Your task to perform on an android device: Open Youtube and go to "Your channel" Image 0: 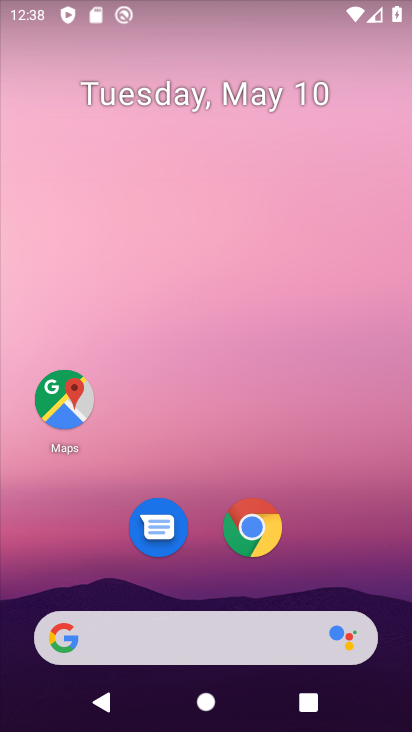
Step 0: drag from (327, 551) to (373, 46)
Your task to perform on an android device: Open Youtube and go to "Your channel" Image 1: 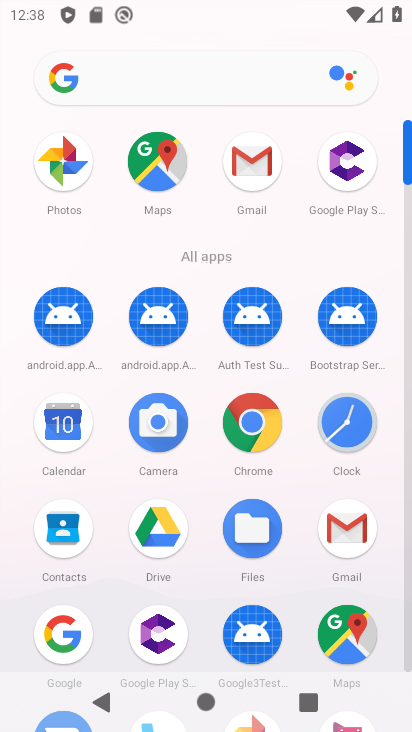
Step 1: drag from (307, 669) to (333, 335)
Your task to perform on an android device: Open Youtube and go to "Your channel" Image 2: 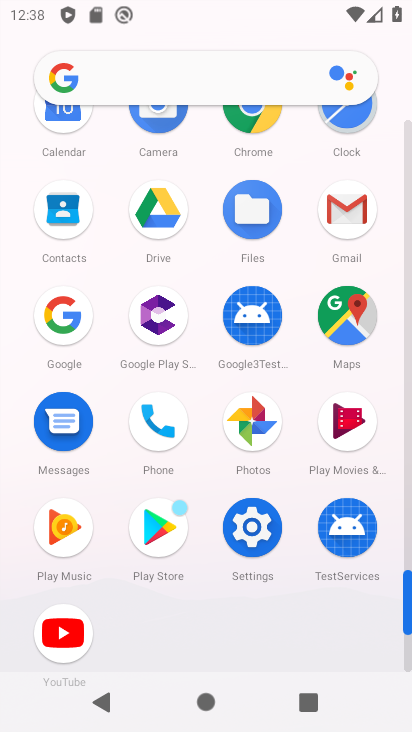
Step 2: click (61, 631)
Your task to perform on an android device: Open Youtube and go to "Your channel" Image 3: 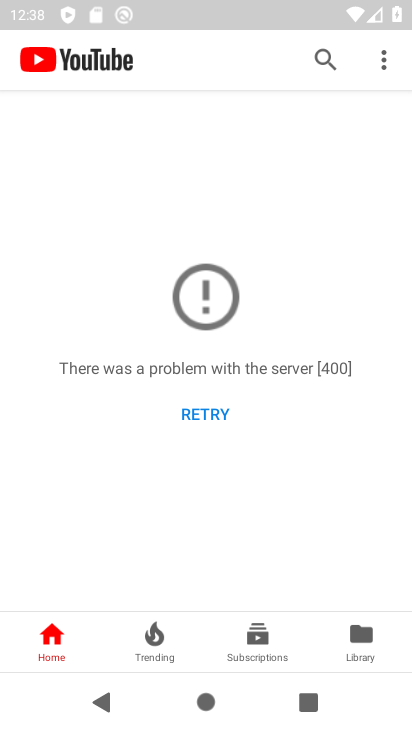
Step 3: click (360, 639)
Your task to perform on an android device: Open Youtube and go to "Your channel" Image 4: 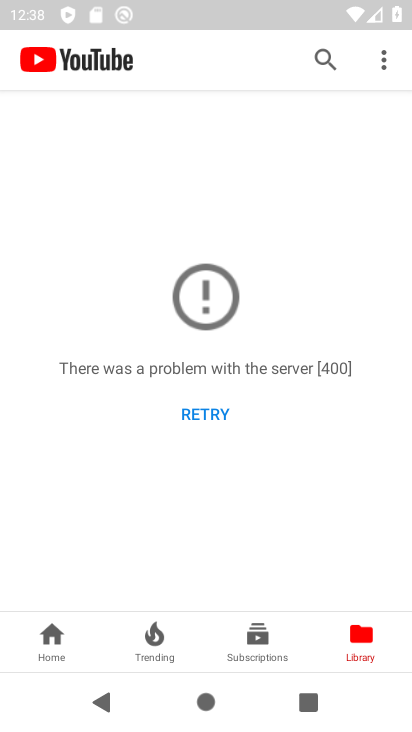
Step 4: task complete